Your task to perform on an android device: toggle data saver in the chrome app Image 0: 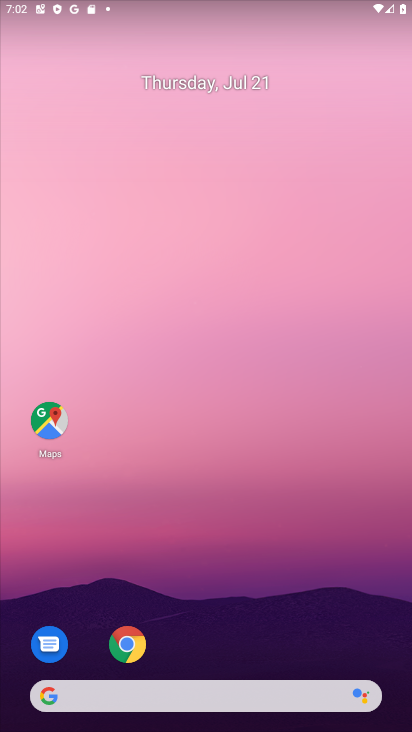
Step 0: drag from (254, 605) to (215, 251)
Your task to perform on an android device: toggle data saver in the chrome app Image 1: 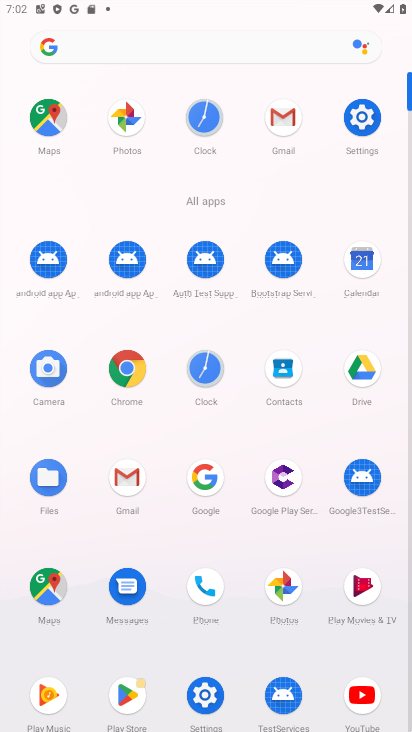
Step 1: click (126, 364)
Your task to perform on an android device: toggle data saver in the chrome app Image 2: 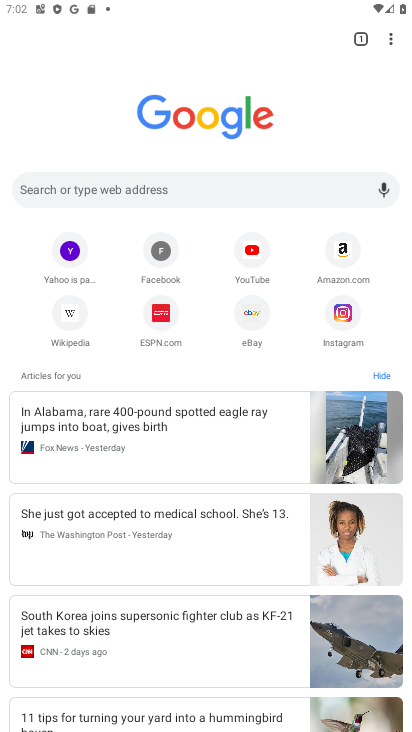
Step 2: click (396, 43)
Your task to perform on an android device: toggle data saver in the chrome app Image 3: 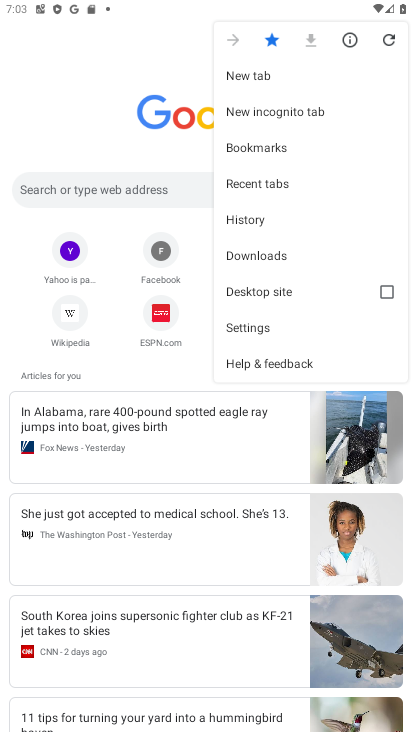
Step 3: click (246, 320)
Your task to perform on an android device: toggle data saver in the chrome app Image 4: 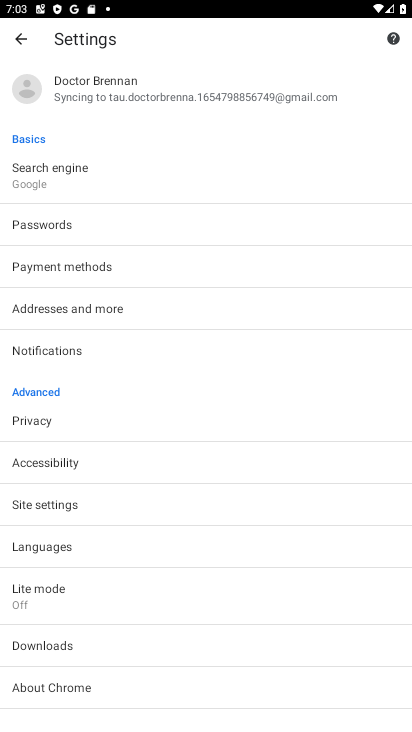
Step 4: task complete